Your task to perform on an android device: Do I have any events today? Image 0: 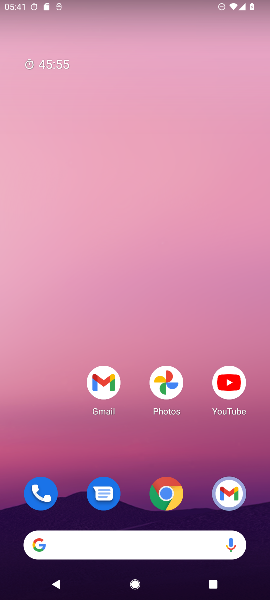
Step 0: press home button
Your task to perform on an android device: Do I have any events today? Image 1: 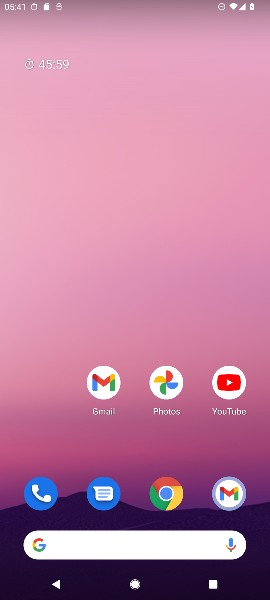
Step 1: drag from (62, 450) to (86, 94)
Your task to perform on an android device: Do I have any events today? Image 2: 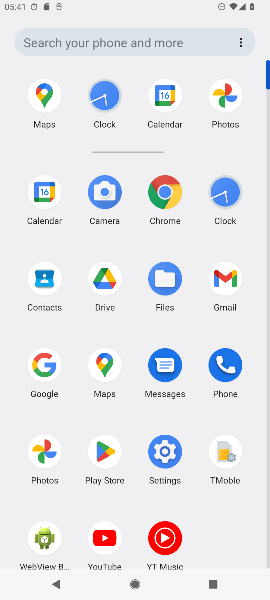
Step 2: click (41, 193)
Your task to perform on an android device: Do I have any events today? Image 3: 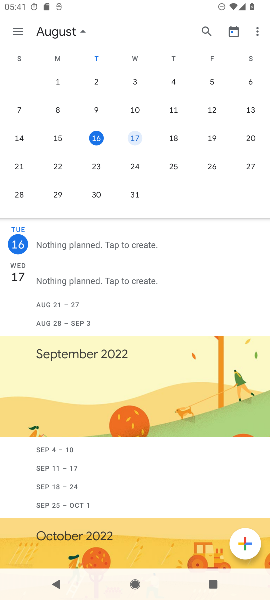
Step 3: task complete